Your task to perform on an android device: manage bookmarks in the chrome app Image 0: 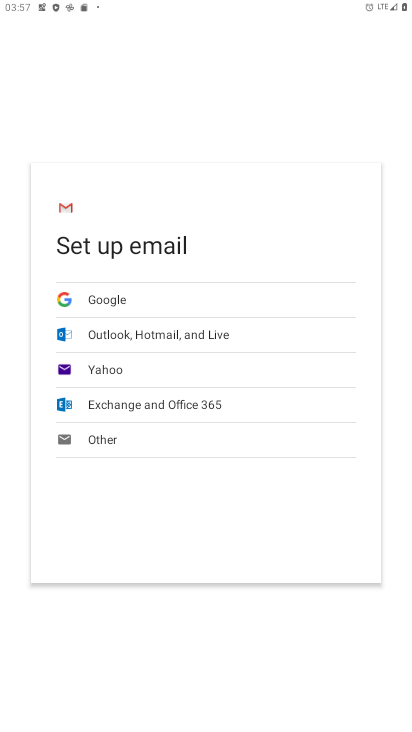
Step 0: press home button
Your task to perform on an android device: manage bookmarks in the chrome app Image 1: 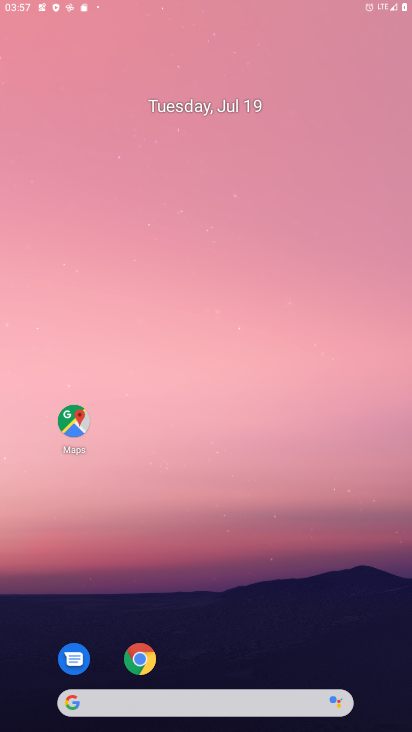
Step 1: drag from (227, 627) to (392, 43)
Your task to perform on an android device: manage bookmarks in the chrome app Image 2: 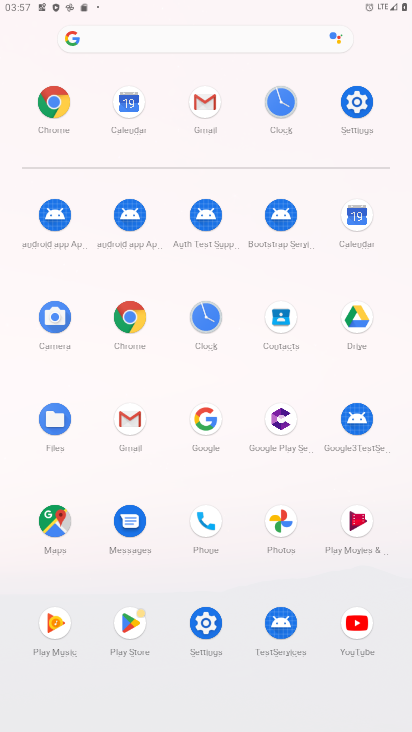
Step 2: click (156, 317)
Your task to perform on an android device: manage bookmarks in the chrome app Image 3: 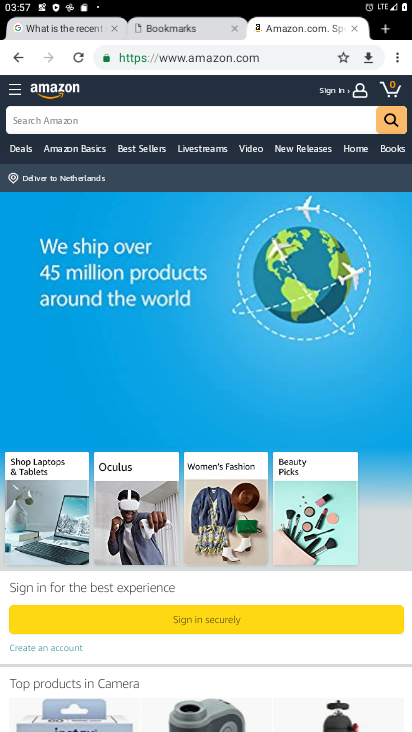
Step 3: drag from (393, 51) to (283, 160)
Your task to perform on an android device: manage bookmarks in the chrome app Image 4: 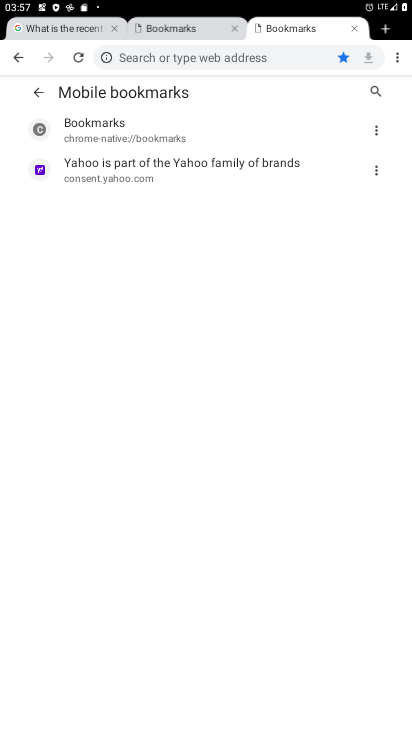
Step 4: click (384, 164)
Your task to perform on an android device: manage bookmarks in the chrome app Image 5: 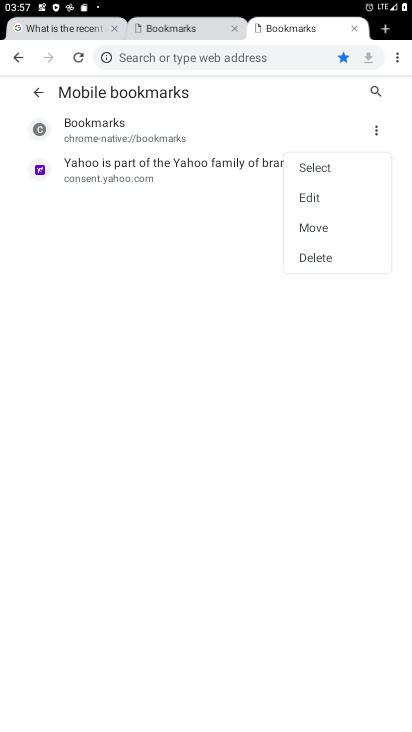
Step 5: click (317, 251)
Your task to perform on an android device: manage bookmarks in the chrome app Image 6: 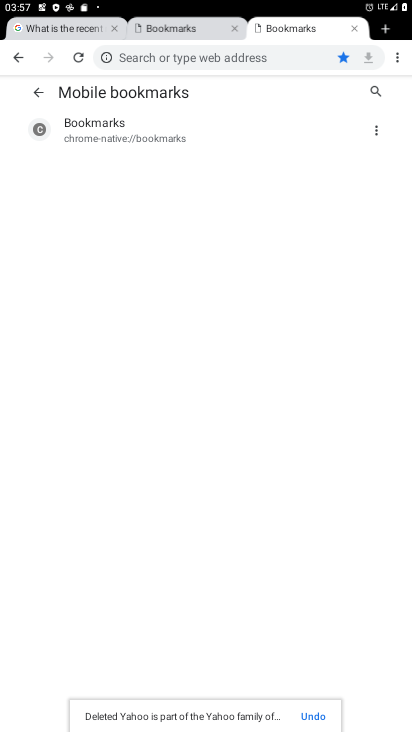
Step 6: task complete